Your task to perform on an android device: allow cookies in the chrome app Image 0: 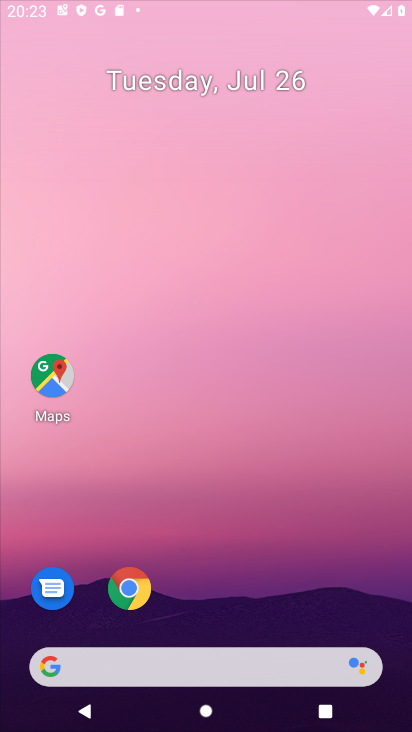
Step 0: press home button
Your task to perform on an android device: allow cookies in the chrome app Image 1: 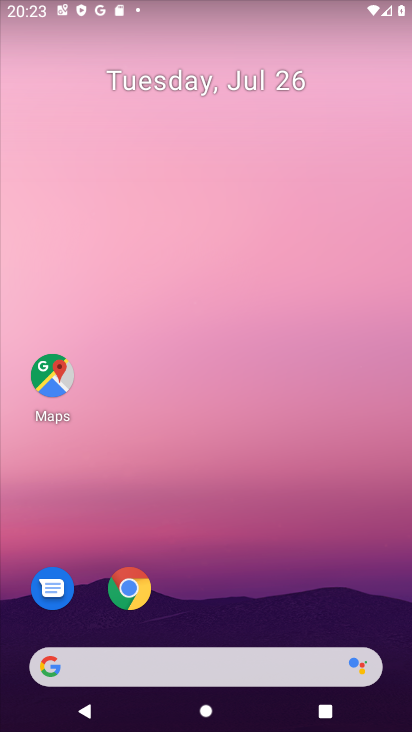
Step 1: click (113, 586)
Your task to perform on an android device: allow cookies in the chrome app Image 2: 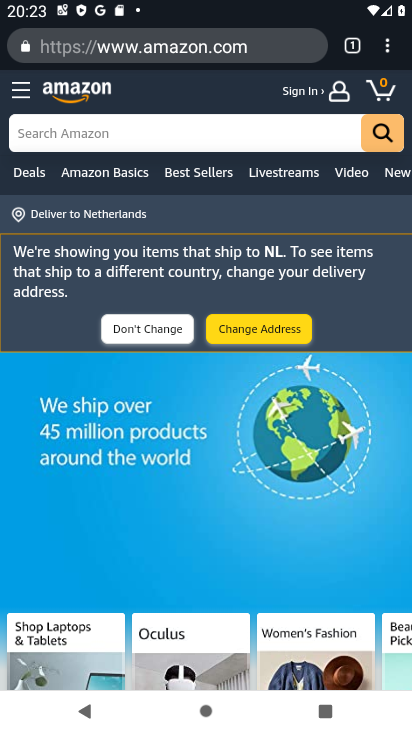
Step 2: drag from (388, 51) to (239, 550)
Your task to perform on an android device: allow cookies in the chrome app Image 3: 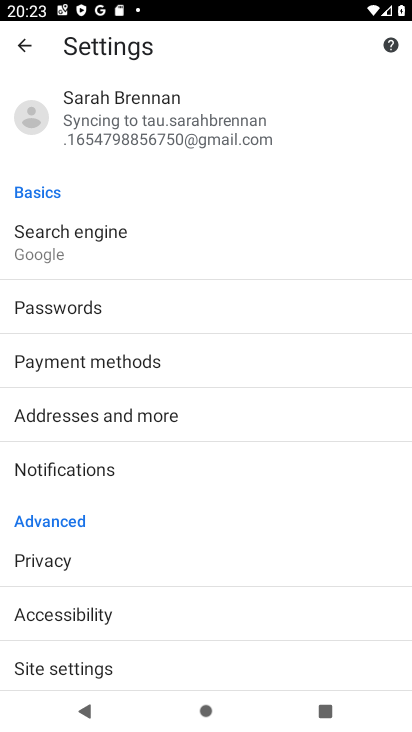
Step 3: click (96, 671)
Your task to perform on an android device: allow cookies in the chrome app Image 4: 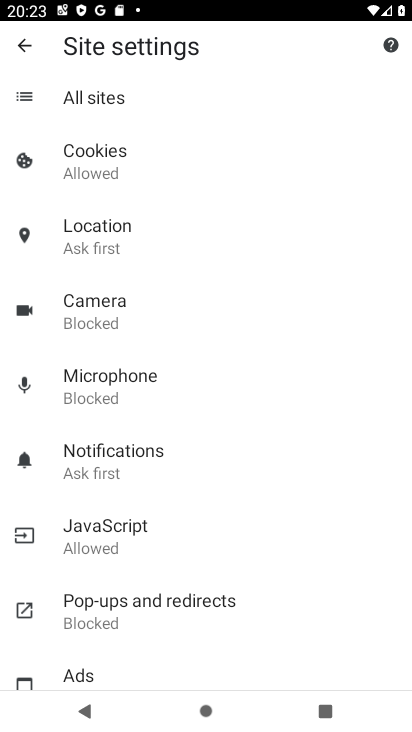
Step 4: click (98, 146)
Your task to perform on an android device: allow cookies in the chrome app Image 5: 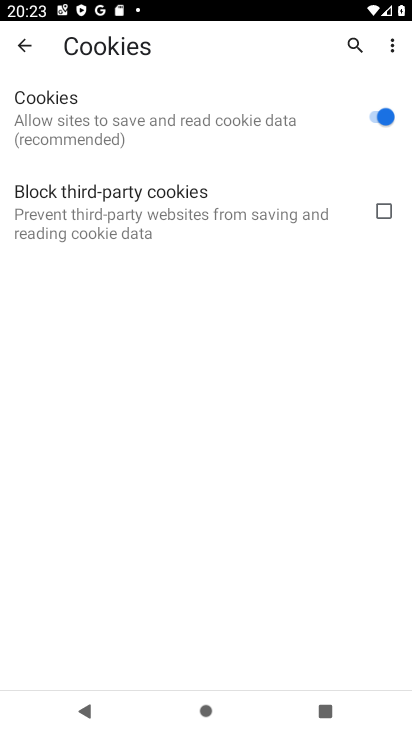
Step 5: task complete